Your task to perform on an android device: open device folders in google photos Image 0: 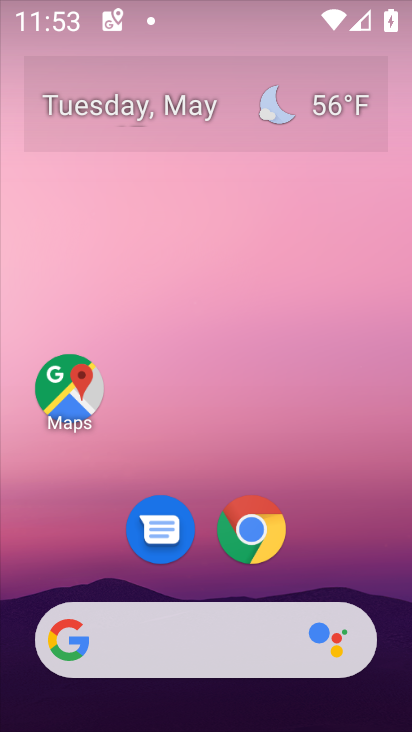
Step 0: click (36, 297)
Your task to perform on an android device: open device folders in google photos Image 1: 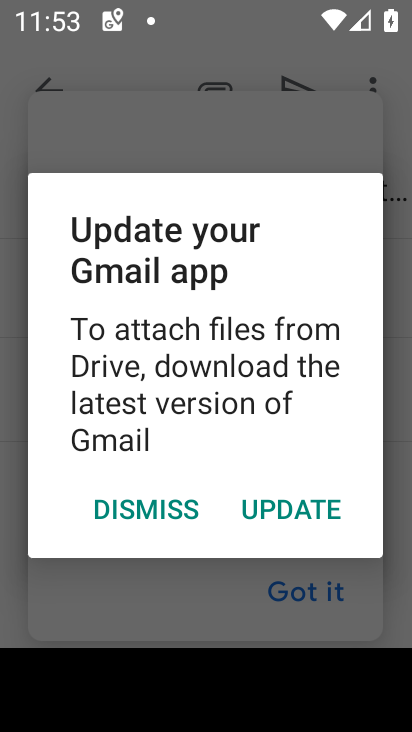
Step 1: press home button
Your task to perform on an android device: open device folders in google photos Image 2: 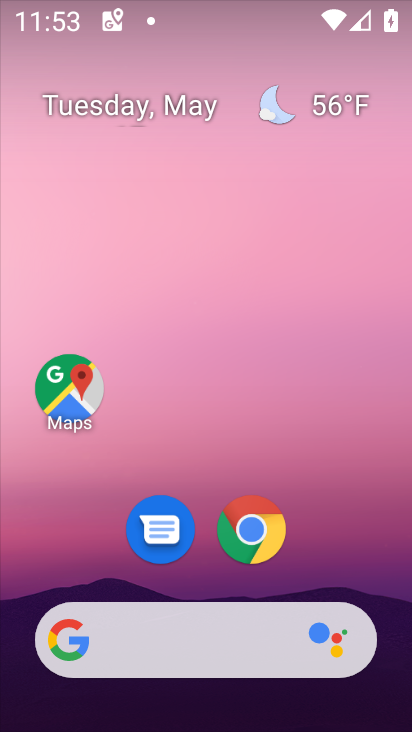
Step 2: drag from (403, 608) to (407, 184)
Your task to perform on an android device: open device folders in google photos Image 3: 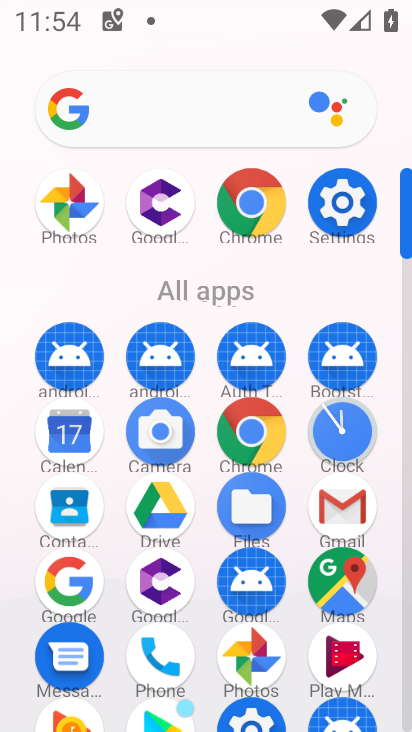
Step 3: click (246, 665)
Your task to perform on an android device: open device folders in google photos Image 4: 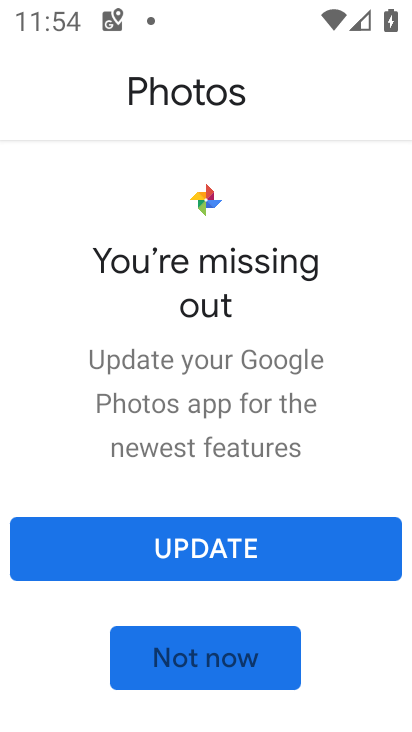
Step 4: click (259, 554)
Your task to perform on an android device: open device folders in google photos Image 5: 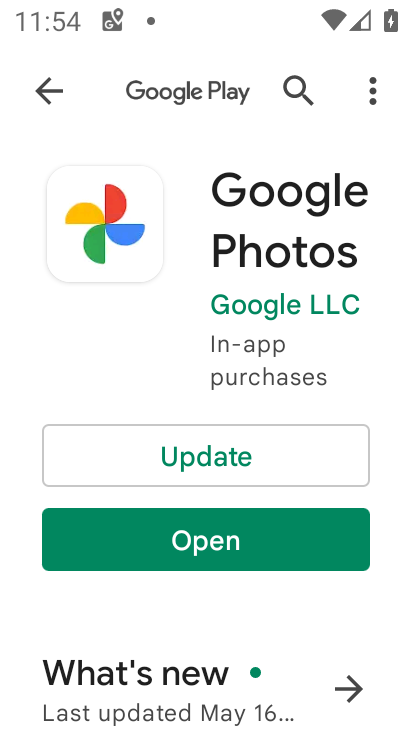
Step 5: click (268, 457)
Your task to perform on an android device: open device folders in google photos Image 6: 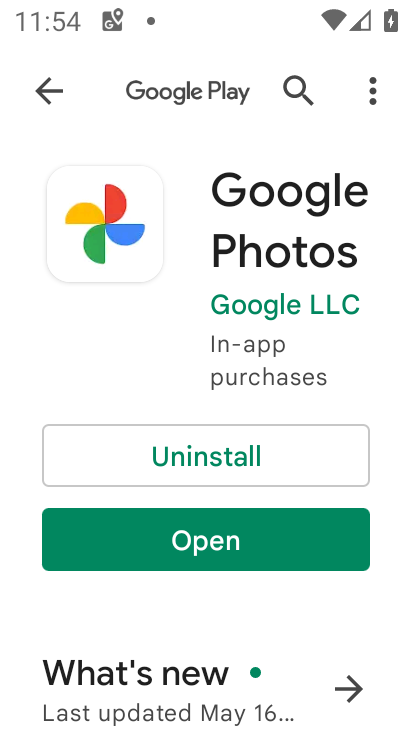
Step 6: click (244, 530)
Your task to perform on an android device: open device folders in google photos Image 7: 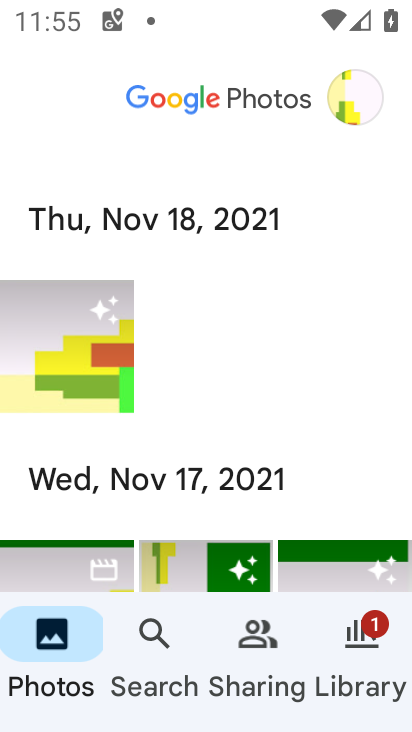
Step 7: task complete